Your task to perform on an android device: Go to display settings Image 0: 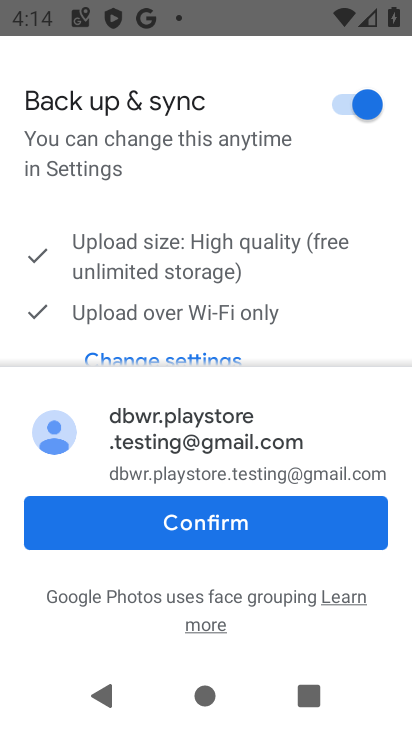
Step 0: press home button
Your task to perform on an android device: Go to display settings Image 1: 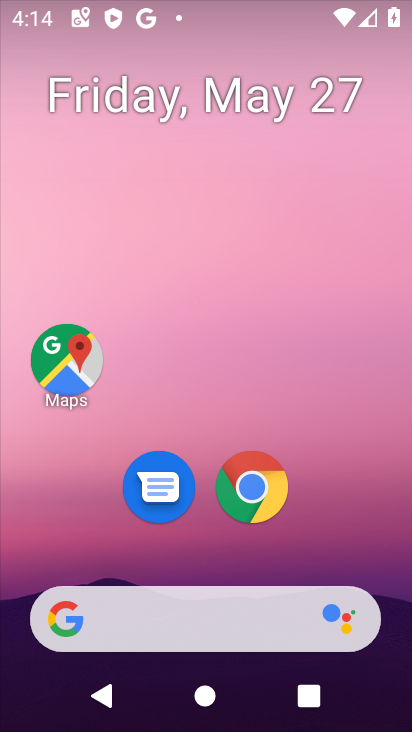
Step 1: drag from (343, 406) to (304, 33)
Your task to perform on an android device: Go to display settings Image 2: 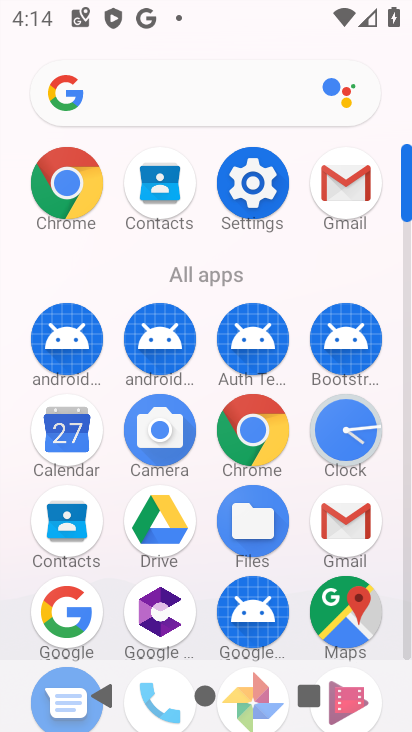
Step 2: click (257, 187)
Your task to perform on an android device: Go to display settings Image 3: 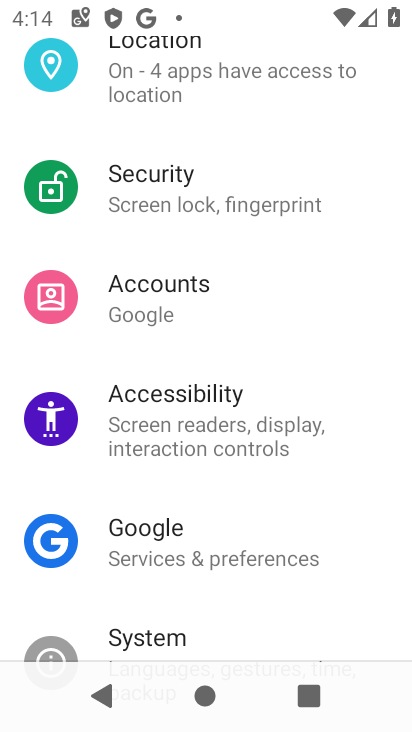
Step 3: drag from (189, 126) to (237, 544)
Your task to perform on an android device: Go to display settings Image 4: 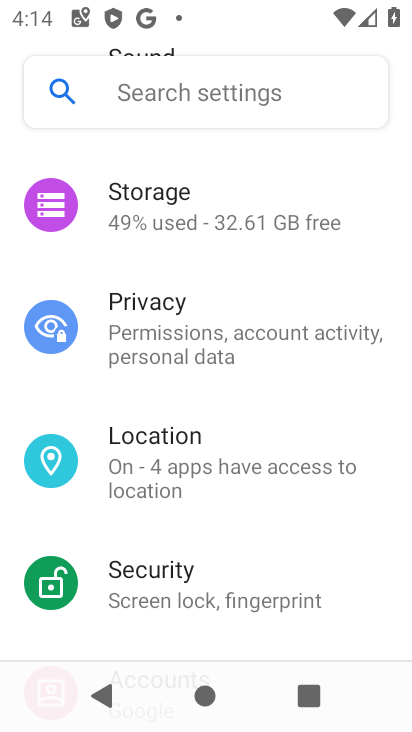
Step 4: drag from (173, 170) to (220, 536)
Your task to perform on an android device: Go to display settings Image 5: 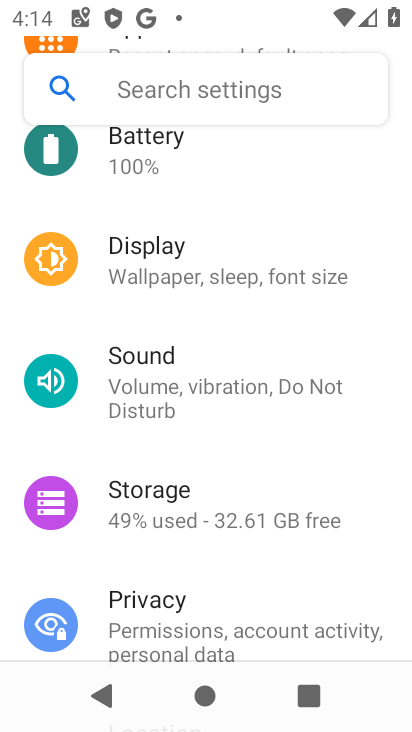
Step 5: drag from (220, 144) to (219, 283)
Your task to perform on an android device: Go to display settings Image 6: 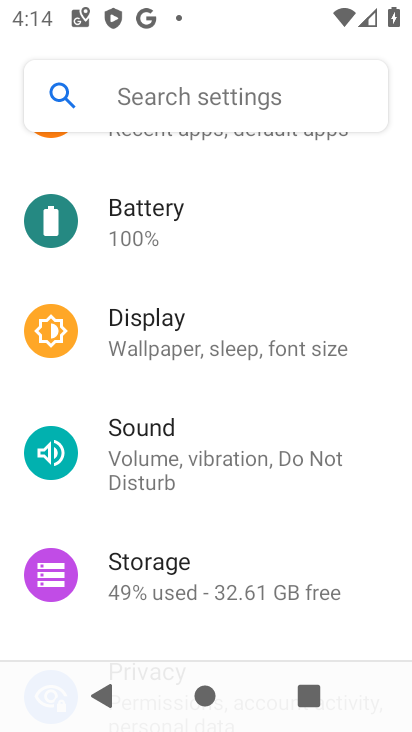
Step 6: click (195, 320)
Your task to perform on an android device: Go to display settings Image 7: 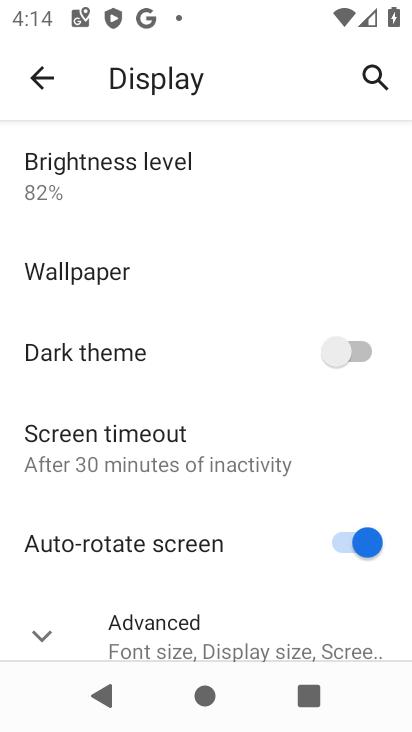
Step 7: task complete